Your task to perform on an android device: turn on data saver in the chrome app Image 0: 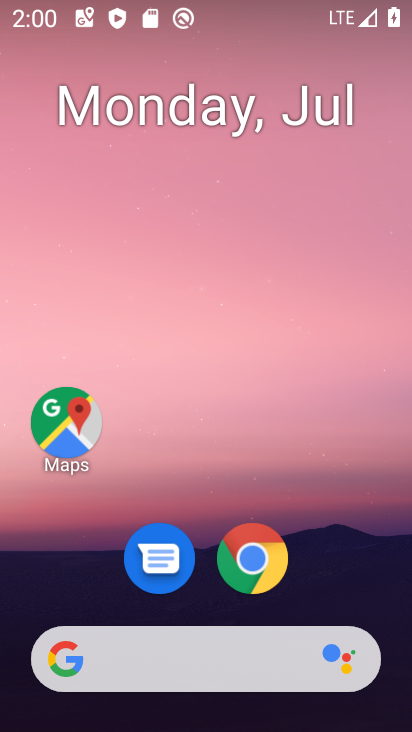
Step 0: drag from (377, 562) to (355, 114)
Your task to perform on an android device: turn on data saver in the chrome app Image 1: 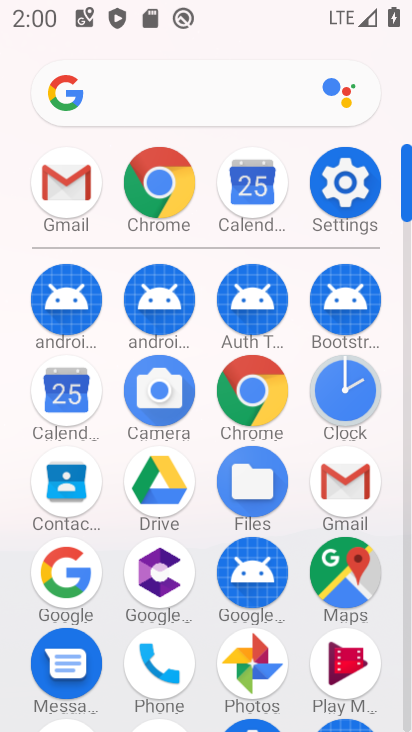
Step 1: click (259, 402)
Your task to perform on an android device: turn on data saver in the chrome app Image 2: 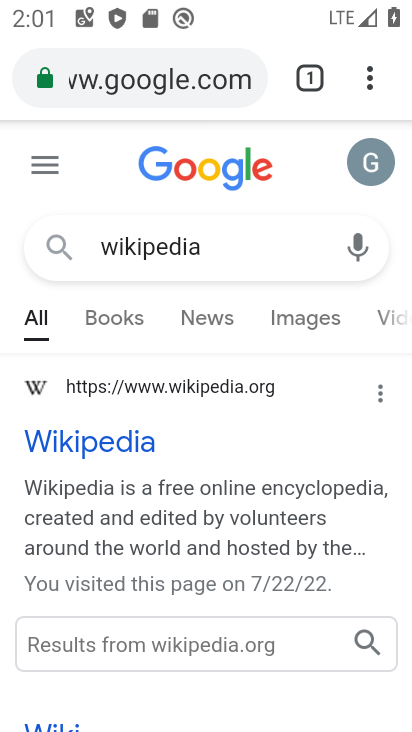
Step 2: click (367, 89)
Your task to perform on an android device: turn on data saver in the chrome app Image 3: 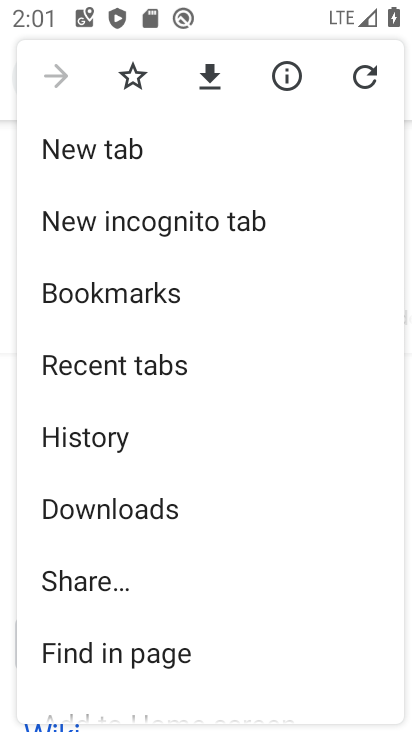
Step 3: drag from (310, 536) to (298, 295)
Your task to perform on an android device: turn on data saver in the chrome app Image 4: 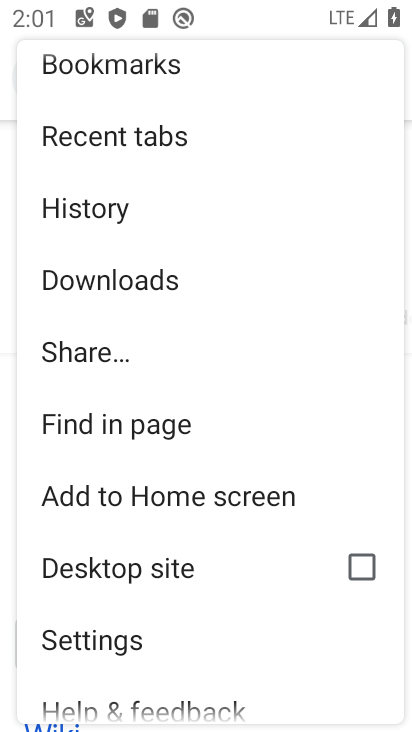
Step 4: drag from (266, 533) to (256, 388)
Your task to perform on an android device: turn on data saver in the chrome app Image 5: 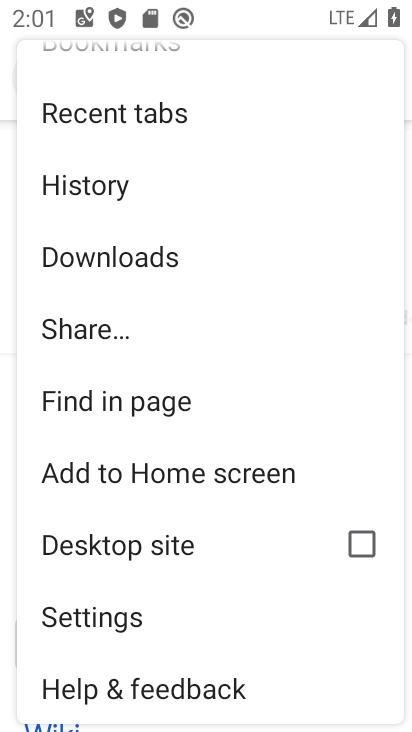
Step 5: click (180, 618)
Your task to perform on an android device: turn on data saver in the chrome app Image 6: 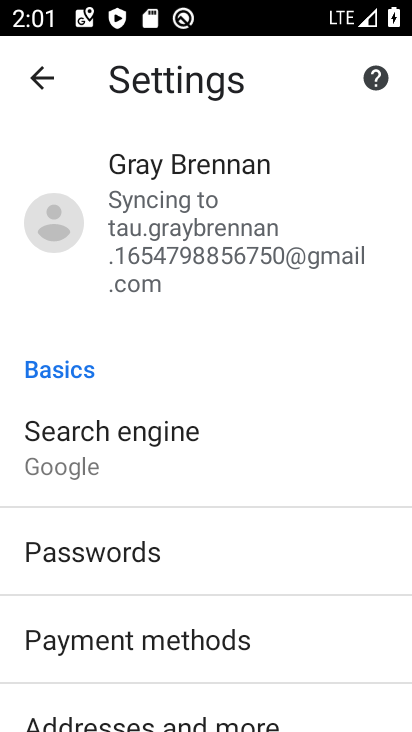
Step 6: drag from (254, 571) to (262, 375)
Your task to perform on an android device: turn on data saver in the chrome app Image 7: 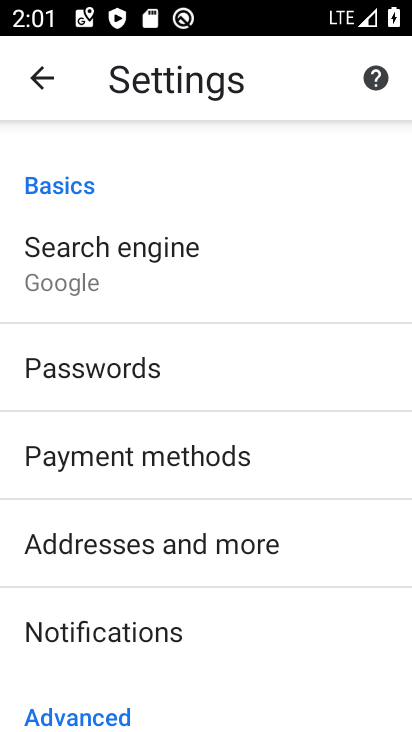
Step 7: drag from (267, 521) to (261, 370)
Your task to perform on an android device: turn on data saver in the chrome app Image 8: 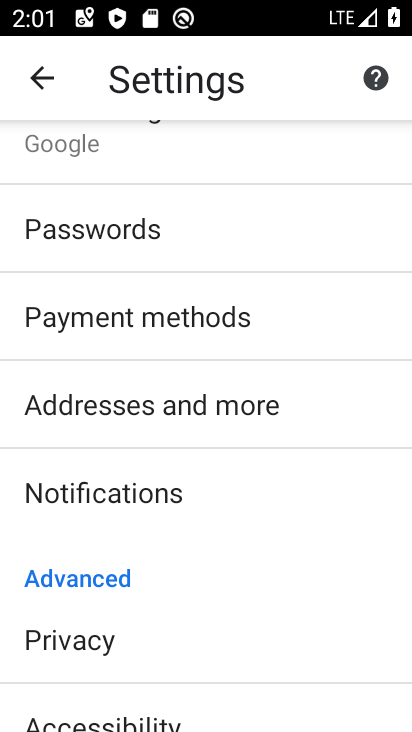
Step 8: drag from (289, 566) to (276, 395)
Your task to perform on an android device: turn on data saver in the chrome app Image 9: 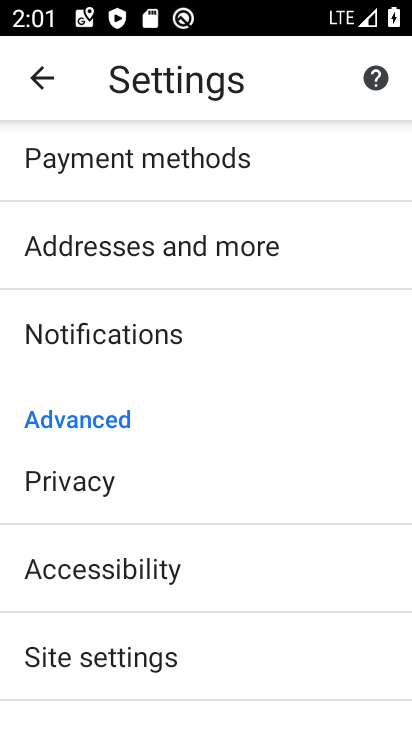
Step 9: drag from (278, 490) to (267, 385)
Your task to perform on an android device: turn on data saver in the chrome app Image 10: 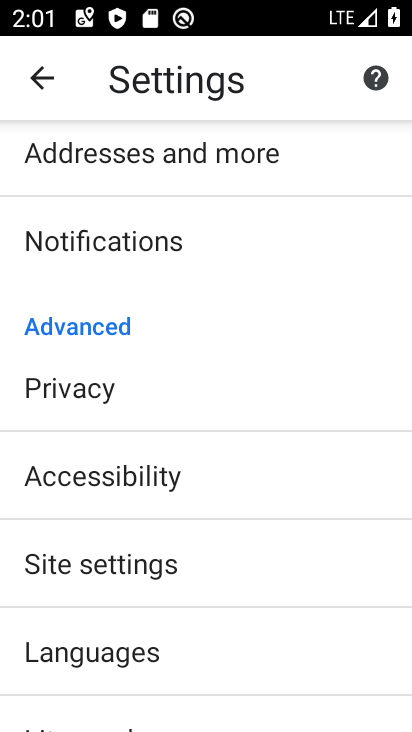
Step 10: drag from (257, 657) to (252, 471)
Your task to perform on an android device: turn on data saver in the chrome app Image 11: 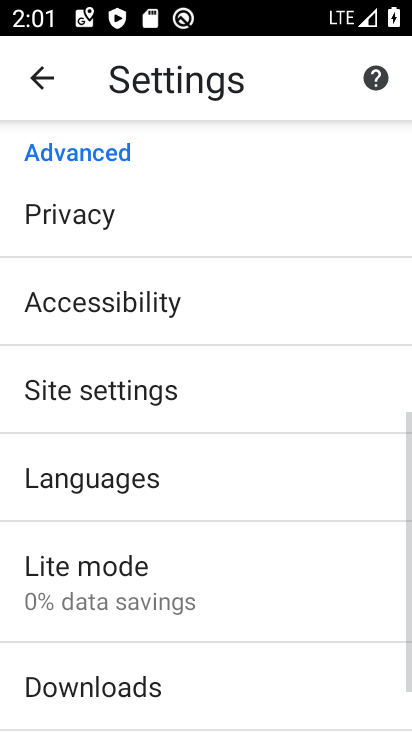
Step 11: click (245, 597)
Your task to perform on an android device: turn on data saver in the chrome app Image 12: 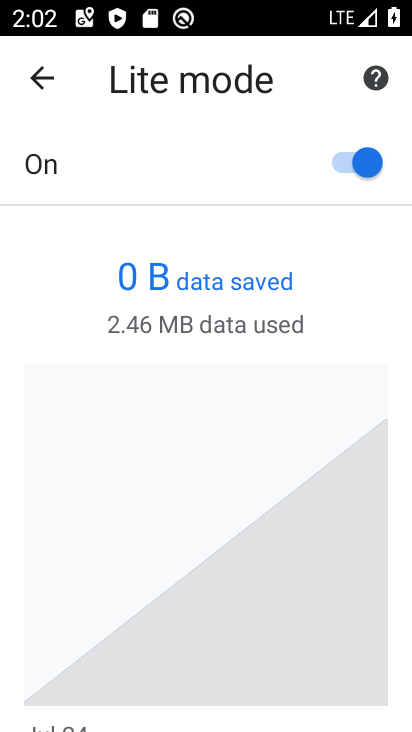
Step 12: task complete